Your task to perform on an android device: Open Google Chrome and click the shortcut for Amazon.com Image 0: 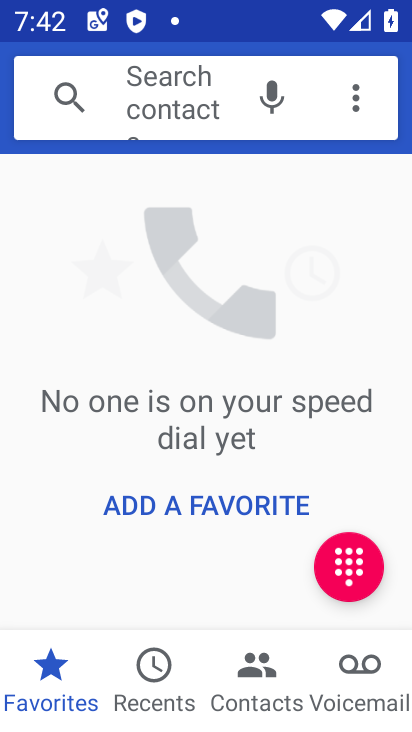
Step 0: press home button
Your task to perform on an android device: Open Google Chrome and click the shortcut for Amazon.com Image 1: 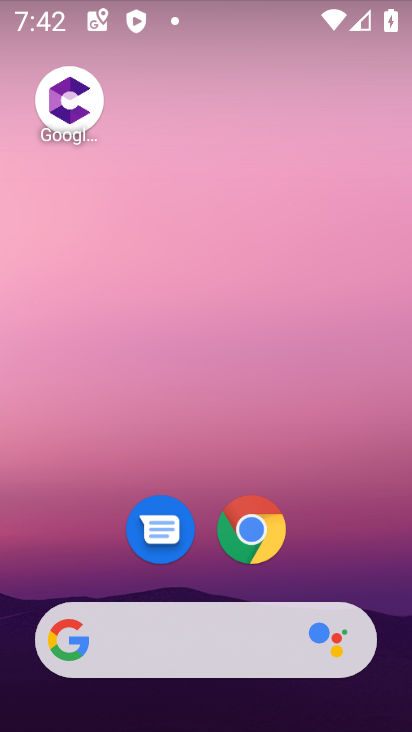
Step 1: click (261, 533)
Your task to perform on an android device: Open Google Chrome and click the shortcut for Amazon.com Image 2: 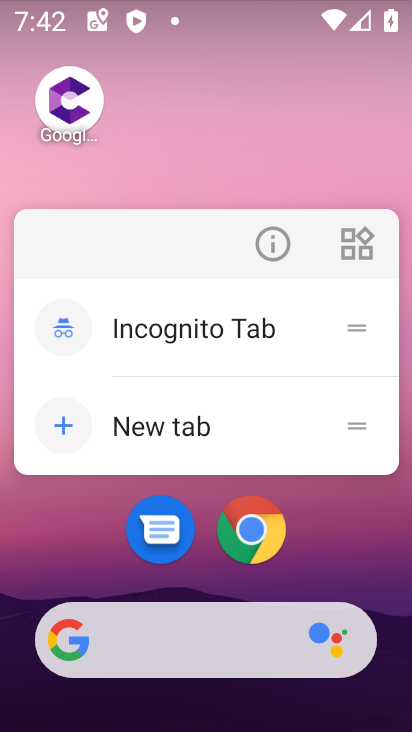
Step 2: click (269, 553)
Your task to perform on an android device: Open Google Chrome and click the shortcut for Amazon.com Image 3: 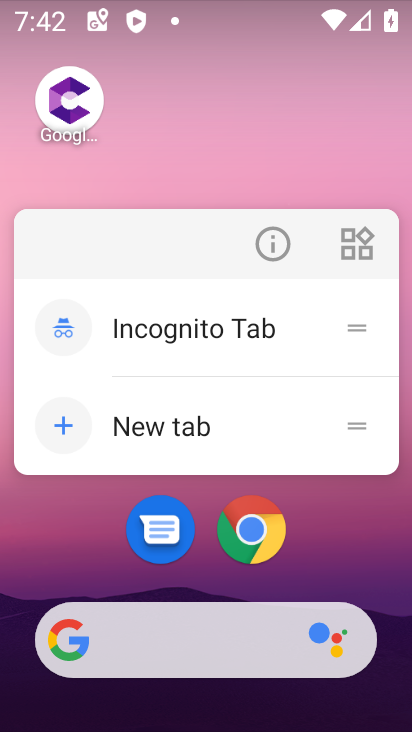
Step 3: click (269, 553)
Your task to perform on an android device: Open Google Chrome and click the shortcut for Amazon.com Image 4: 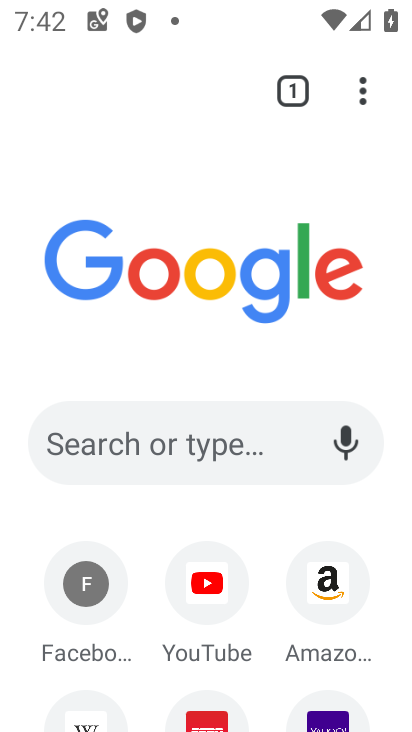
Step 4: click (332, 589)
Your task to perform on an android device: Open Google Chrome and click the shortcut for Amazon.com Image 5: 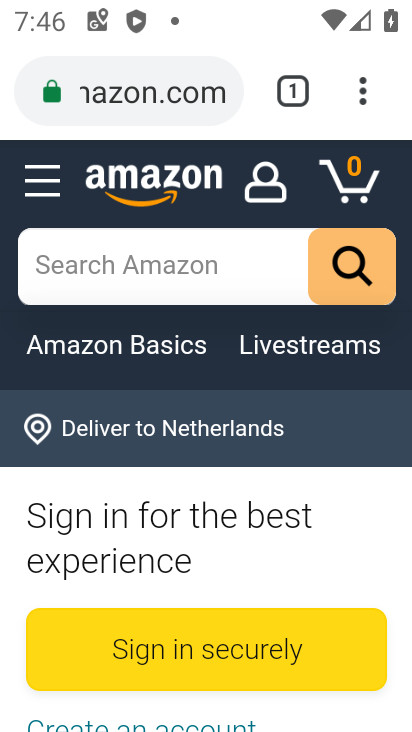
Step 5: task complete